Your task to perform on an android device: toggle priority inbox in the gmail app Image 0: 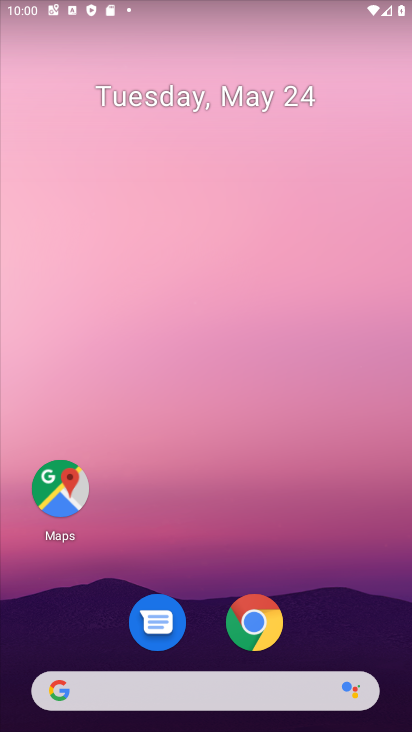
Step 0: press home button
Your task to perform on an android device: toggle priority inbox in the gmail app Image 1: 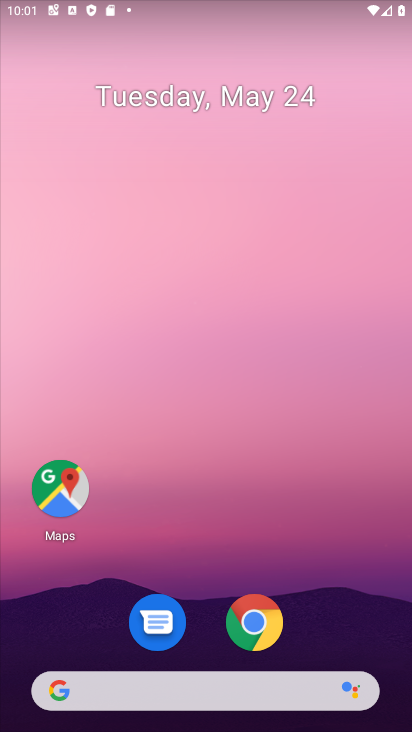
Step 1: drag from (294, 705) to (243, 306)
Your task to perform on an android device: toggle priority inbox in the gmail app Image 2: 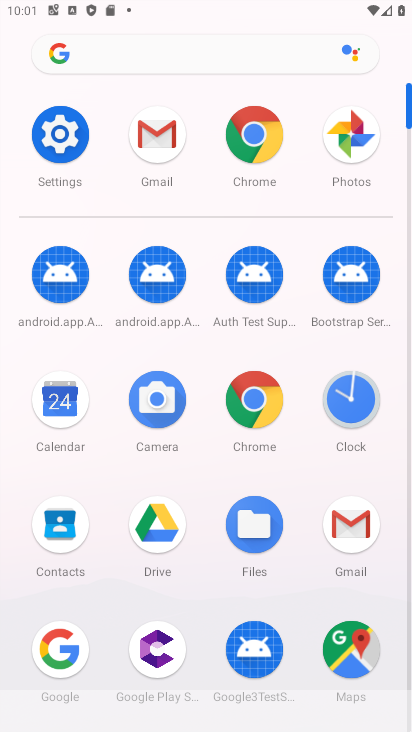
Step 2: click (167, 141)
Your task to perform on an android device: toggle priority inbox in the gmail app Image 3: 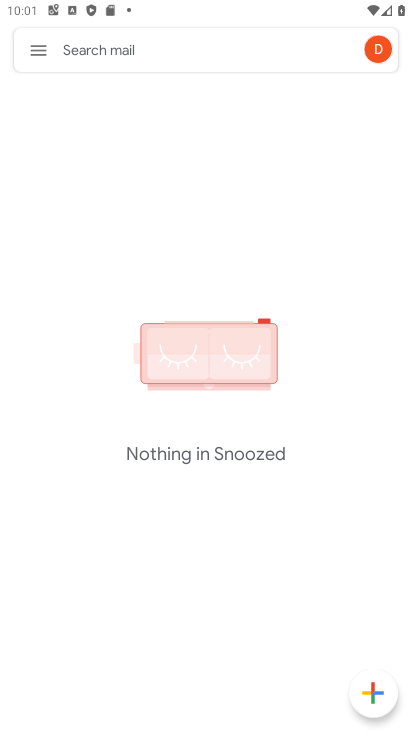
Step 3: click (39, 55)
Your task to perform on an android device: toggle priority inbox in the gmail app Image 4: 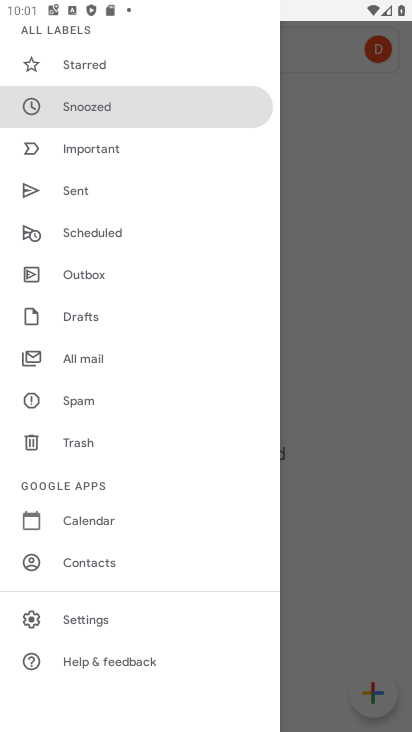
Step 4: drag from (186, 66) to (4, 130)
Your task to perform on an android device: toggle priority inbox in the gmail app Image 5: 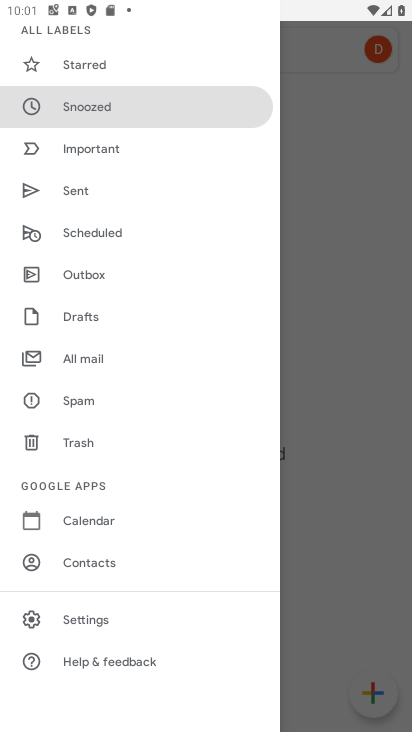
Step 5: click (85, 617)
Your task to perform on an android device: toggle priority inbox in the gmail app Image 6: 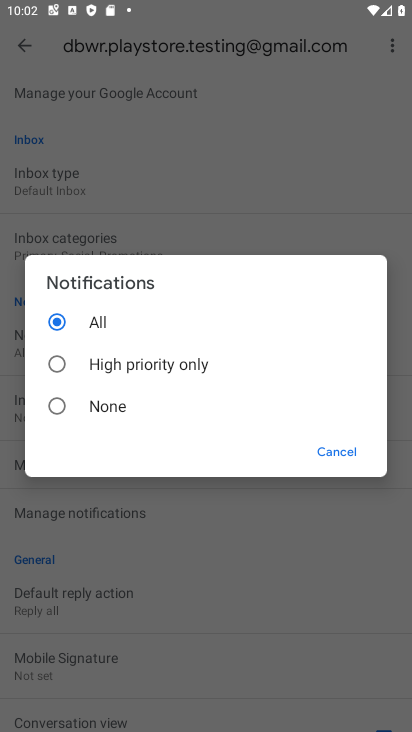
Step 6: click (350, 450)
Your task to perform on an android device: toggle priority inbox in the gmail app Image 7: 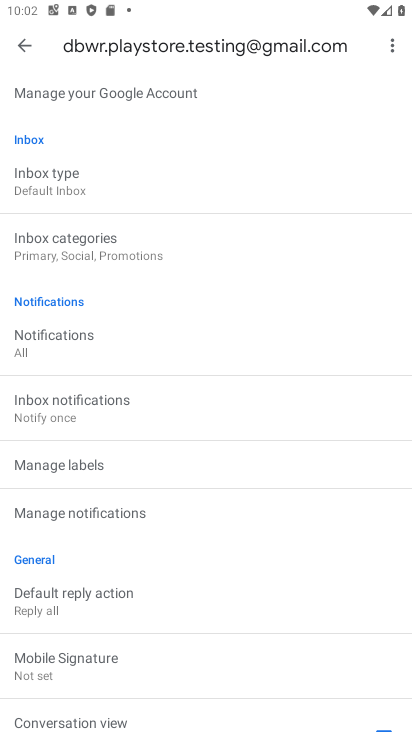
Step 7: click (63, 174)
Your task to perform on an android device: toggle priority inbox in the gmail app Image 8: 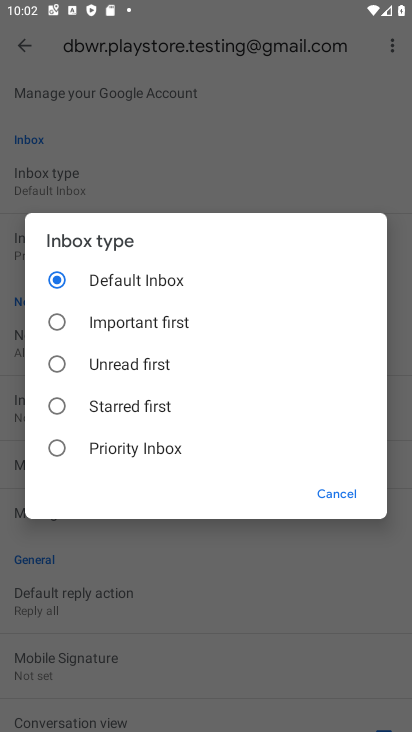
Step 8: task complete